Your task to perform on an android device: toggle airplane mode Image 0: 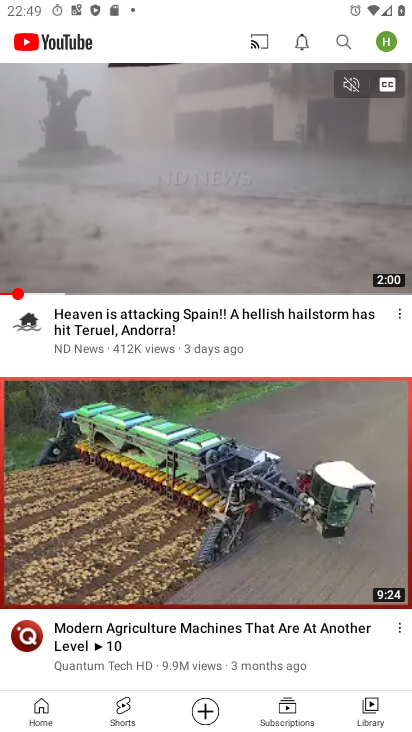
Step 0: press back button
Your task to perform on an android device: toggle airplane mode Image 1: 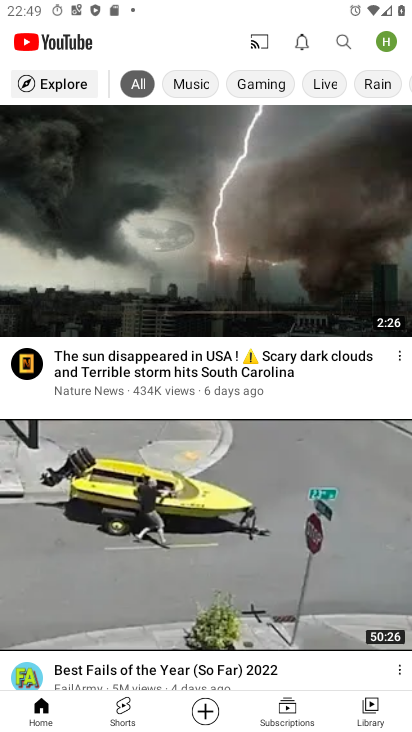
Step 1: press back button
Your task to perform on an android device: toggle airplane mode Image 2: 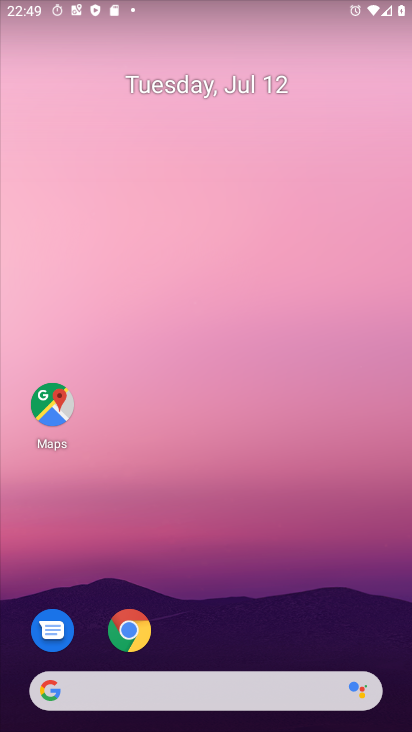
Step 2: drag from (366, 7) to (191, 604)
Your task to perform on an android device: toggle airplane mode Image 3: 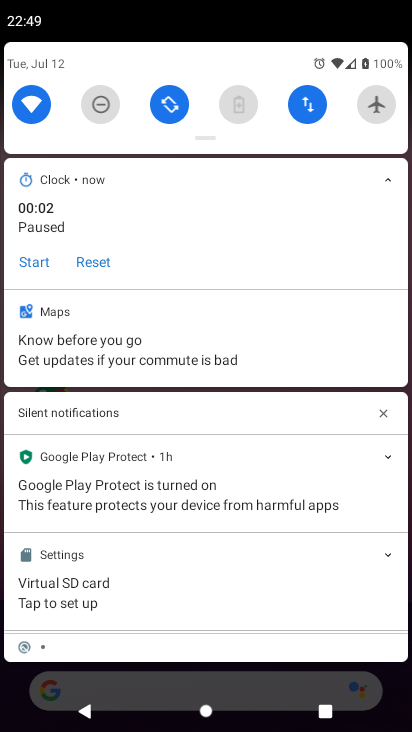
Step 3: click (374, 104)
Your task to perform on an android device: toggle airplane mode Image 4: 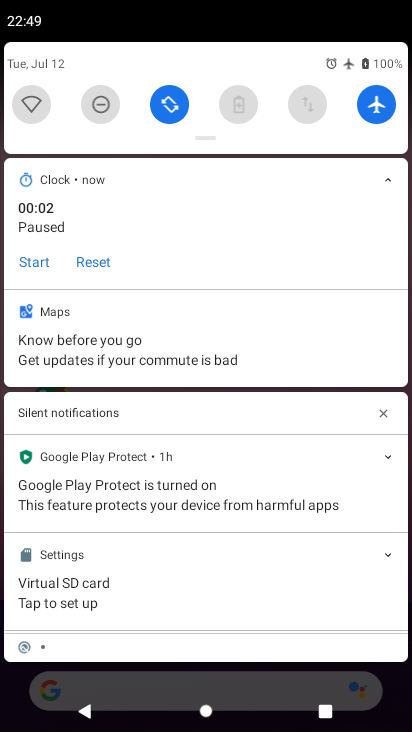
Step 4: task complete